Your task to perform on an android device: find which apps use the phone's location Image 0: 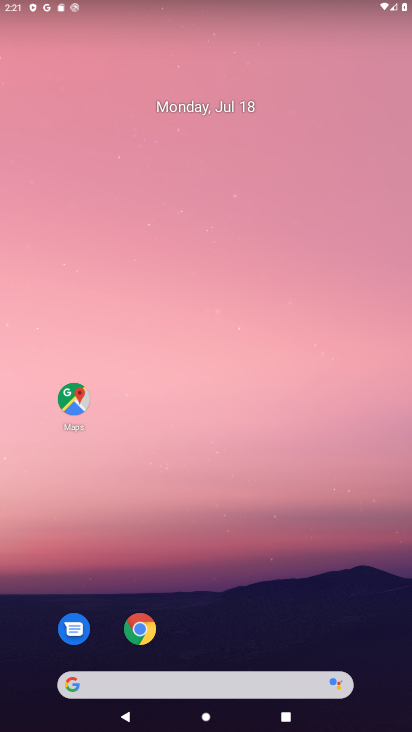
Step 0: drag from (225, 394) to (236, 128)
Your task to perform on an android device: find which apps use the phone's location Image 1: 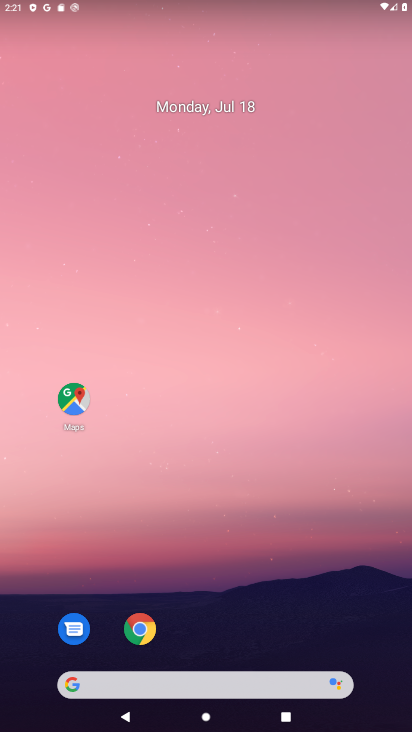
Step 1: drag from (208, 606) to (219, 40)
Your task to perform on an android device: find which apps use the phone's location Image 2: 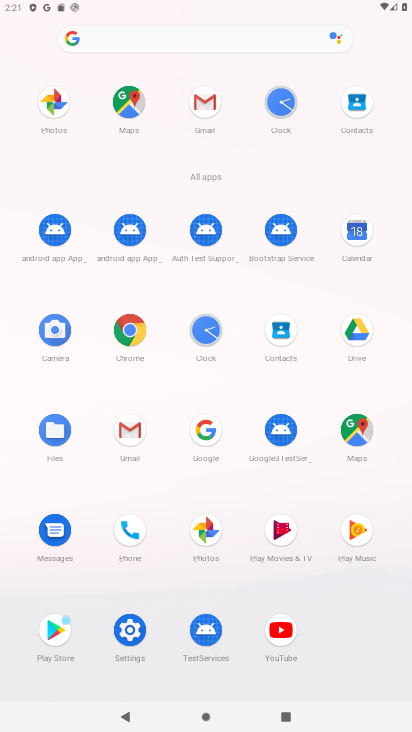
Step 2: click (136, 628)
Your task to perform on an android device: find which apps use the phone's location Image 3: 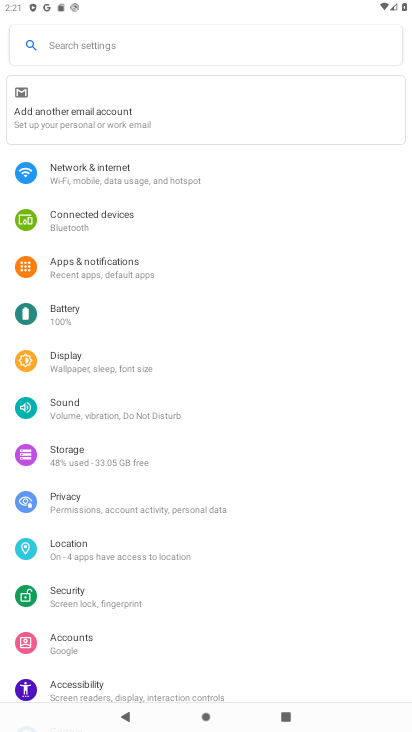
Step 3: click (106, 557)
Your task to perform on an android device: find which apps use the phone's location Image 4: 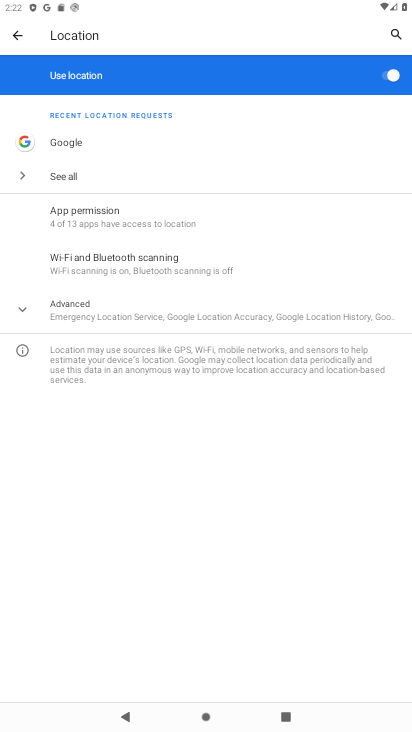
Step 4: click (74, 215)
Your task to perform on an android device: find which apps use the phone's location Image 5: 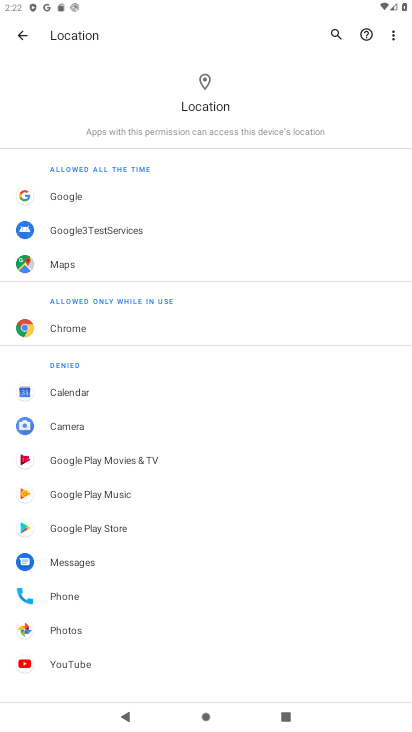
Step 5: task complete